Your task to perform on an android device: Open privacy settings Image 0: 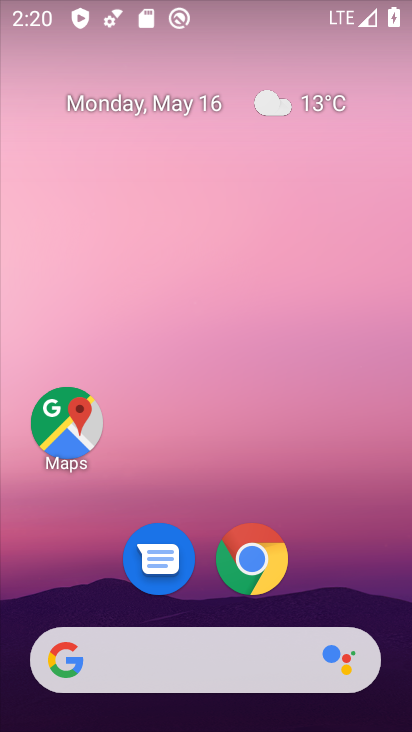
Step 0: drag from (198, 616) to (201, 24)
Your task to perform on an android device: Open privacy settings Image 1: 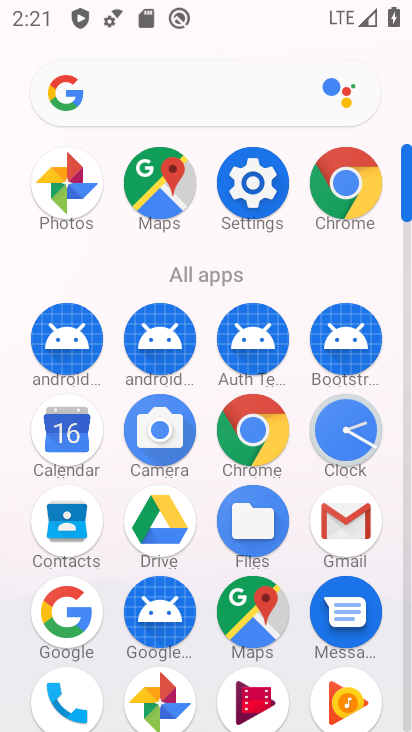
Step 1: click (264, 177)
Your task to perform on an android device: Open privacy settings Image 2: 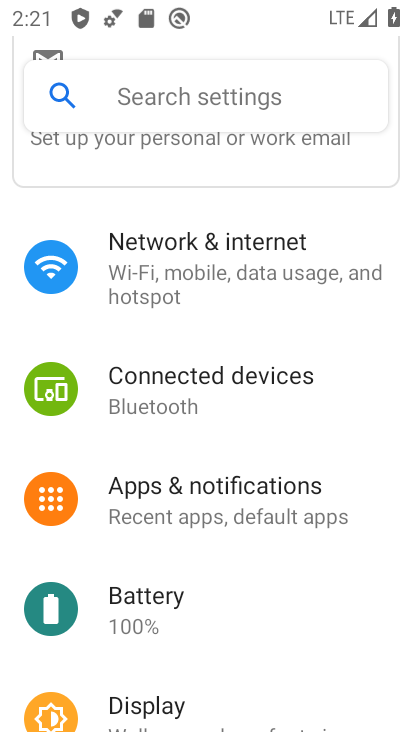
Step 2: drag from (199, 541) to (199, 274)
Your task to perform on an android device: Open privacy settings Image 3: 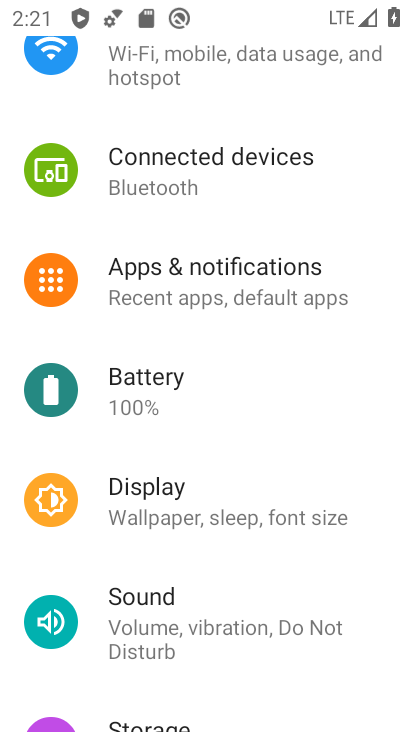
Step 3: drag from (217, 555) to (173, 78)
Your task to perform on an android device: Open privacy settings Image 4: 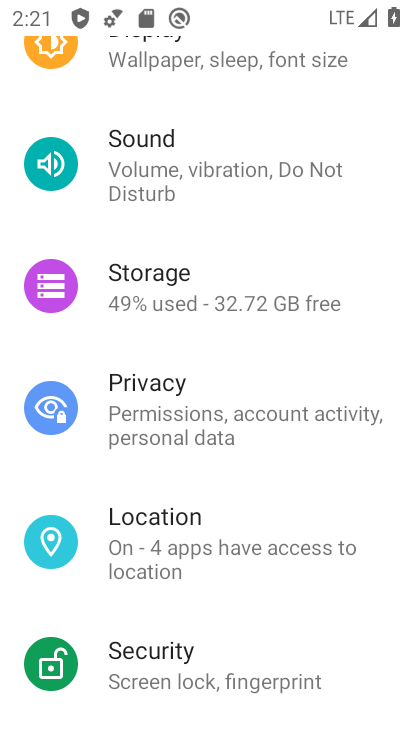
Step 4: click (164, 399)
Your task to perform on an android device: Open privacy settings Image 5: 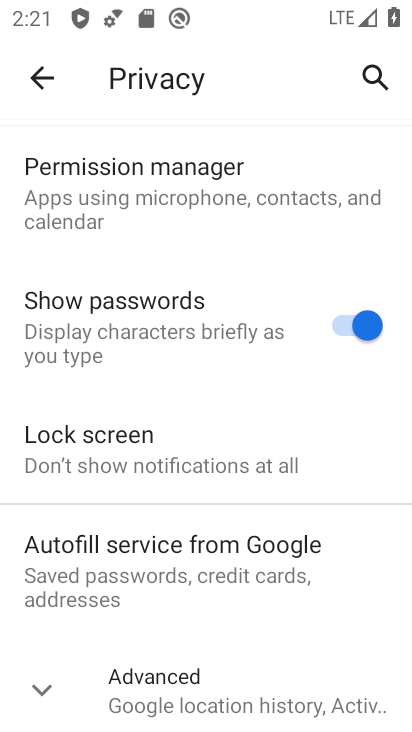
Step 5: click (154, 668)
Your task to perform on an android device: Open privacy settings Image 6: 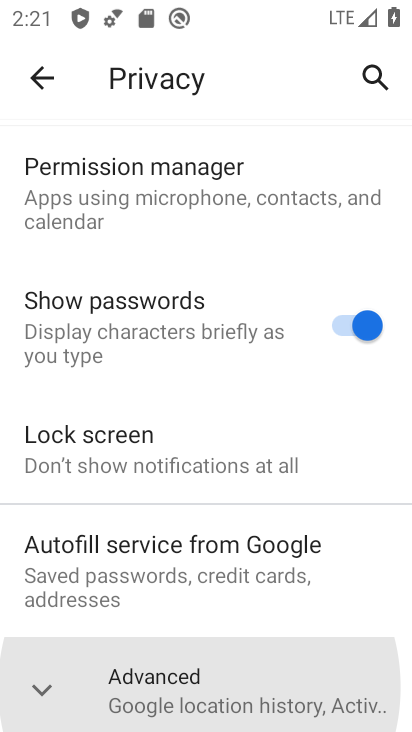
Step 6: task complete